Your task to perform on an android device: Search for pizza restaurants on Maps Image 0: 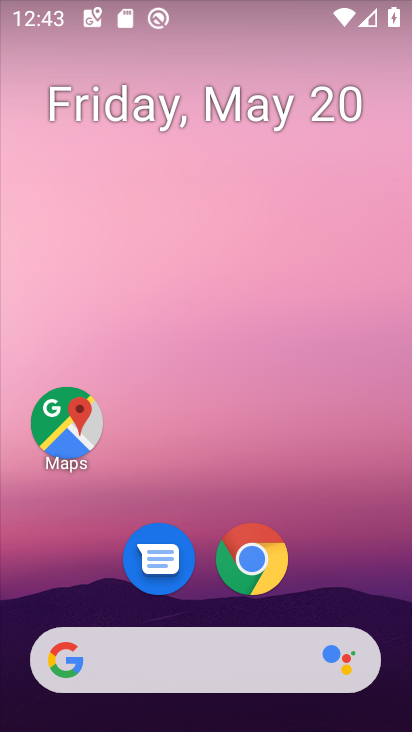
Step 0: click (69, 428)
Your task to perform on an android device: Search for pizza restaurants on Maps Image 1: 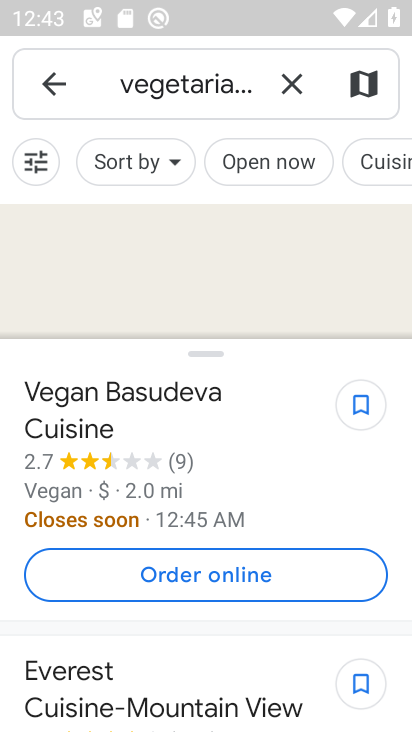
Step 1: click (291, 87)
Your task to perform on an android device: Search for pizza restaurants on Maps Image 2: 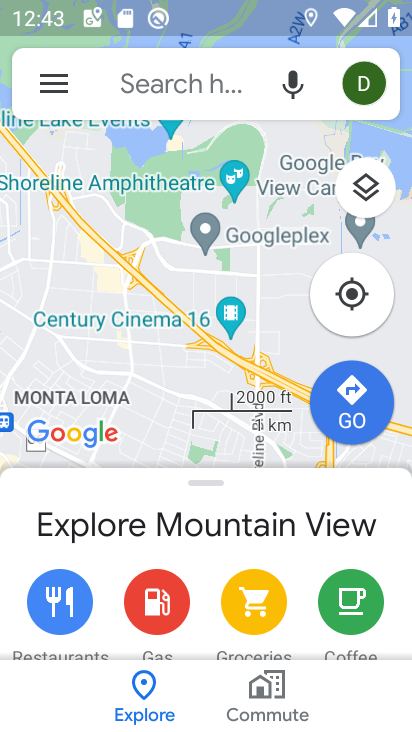
Step 2: click (158, 91)
Your task to perform on an android device: Search for pizza restaurants on Maps Image 3: 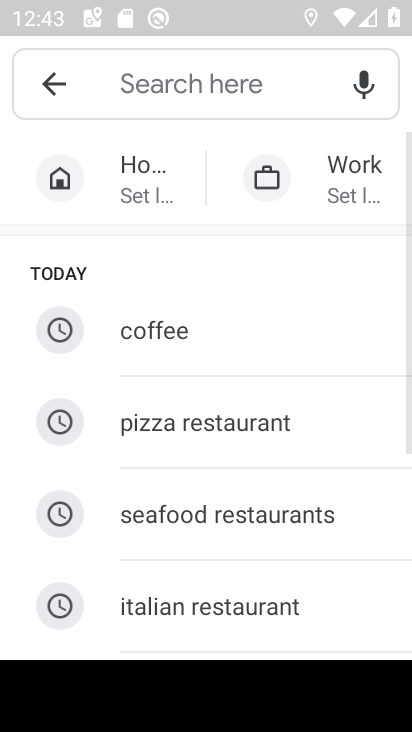
Step 3: click (254, 420)
Your task to perform on an android device: Search for pizza restaurants on Maps Image 4: 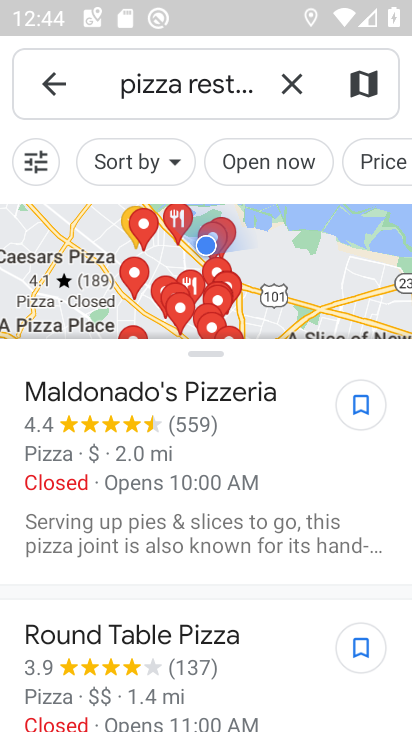
Step 4: task complete